Your task to perform on an android device: Open Google Maps and go to "Timeline" Image 0: 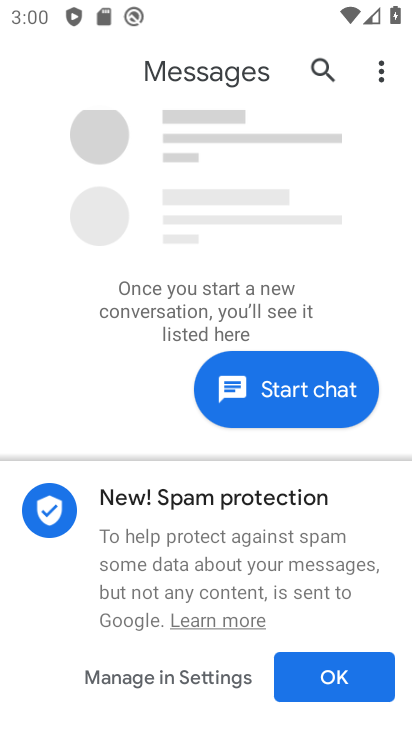
Step 0: press home button
Your task to perform on an android device: Open Google Maps and go to "Timeline" Image 1: 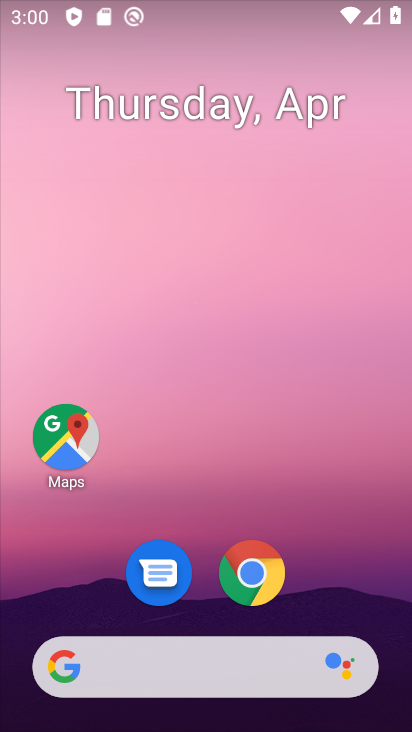
Step 1: drag from (338, 602) to (224, 48)
Your task to perform on an android device: Open Google Maps and go to "Timeline" Image 2: 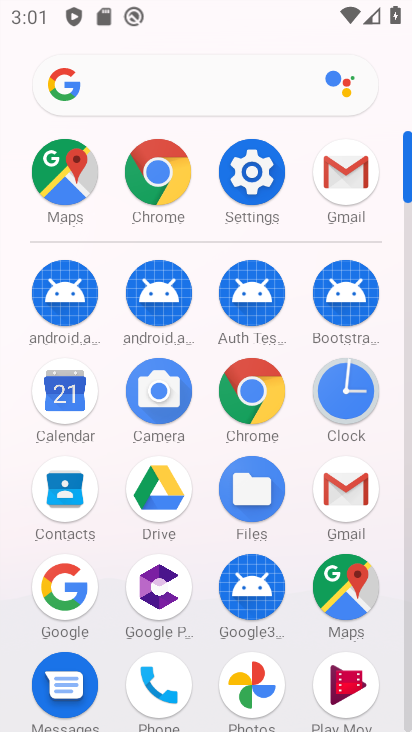
Step 2: click (355, 593)
Your task to perform on an android device: Open Google Maps and go to "Timeline" Image 3: 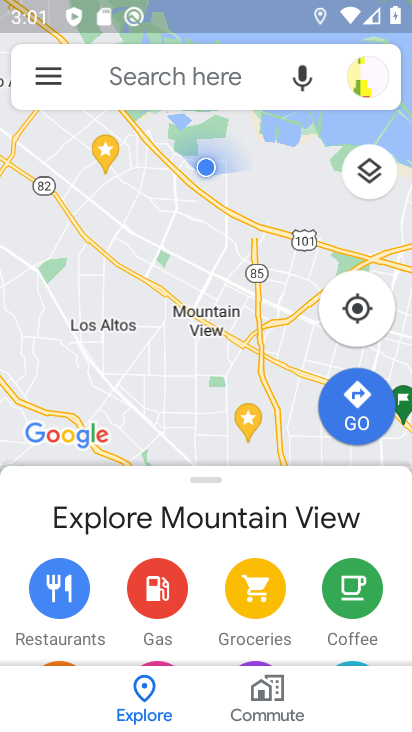
Step 3: click (30, 83)
Your task to perform on an android device: Open Google Maps and go to "Timeline" Image 4: 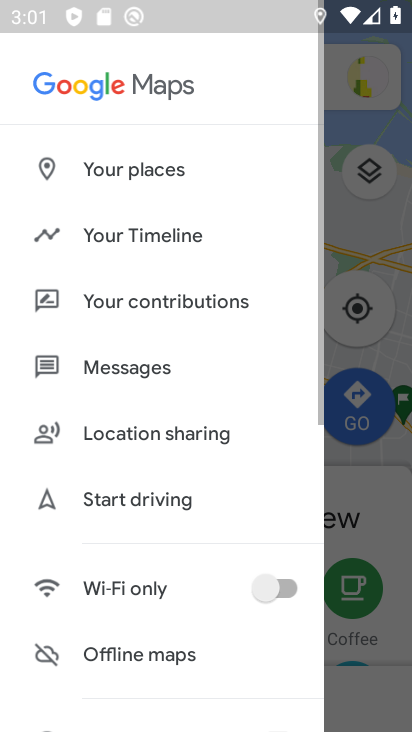
Step 4: click (95, 237)
Your task to perform on an android device: Open Google Maps and go to "Timeline" Image 5: 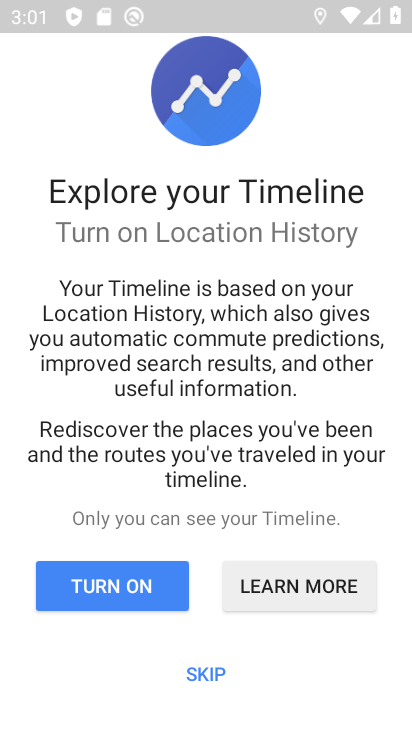
Step 5: task complete